Your task to perform on an android device: turn on location history Image 0: 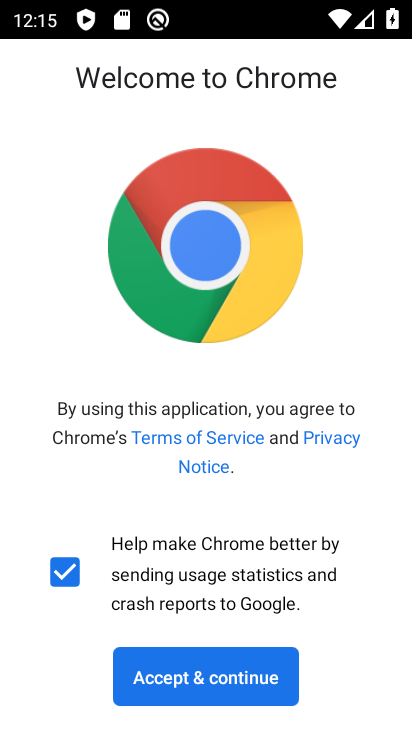
Step 0: press home button
Your task to perform on an android device: turn on location history Image 1: 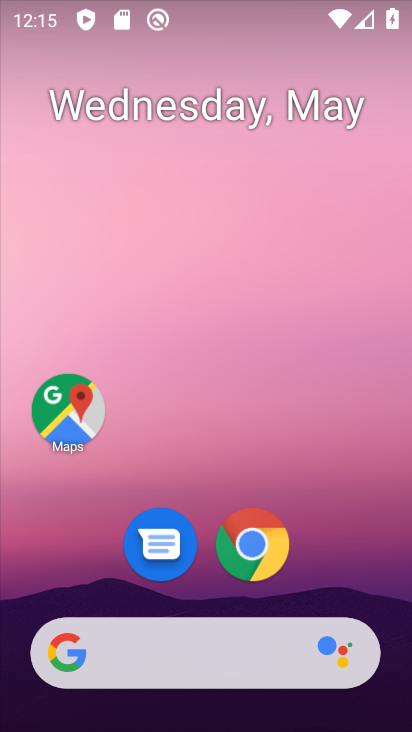
Step 1: drag from (337, 572) to (349, 221)
Your task to perform on an android device: turn on location history Image 2: 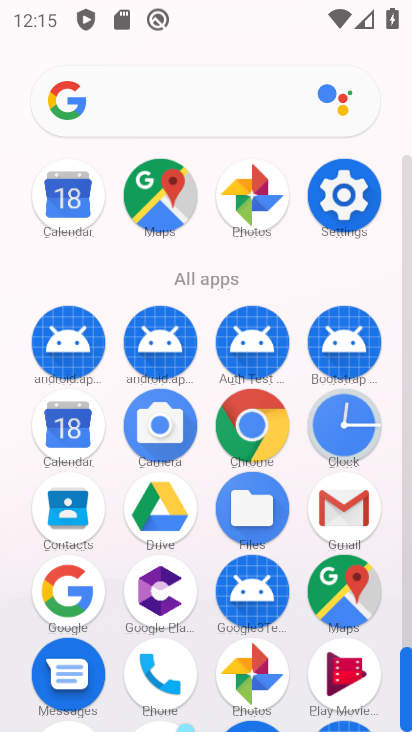
Step 2: click (352, 185)
Your task to perform on an android device: turn on location history Image 3: 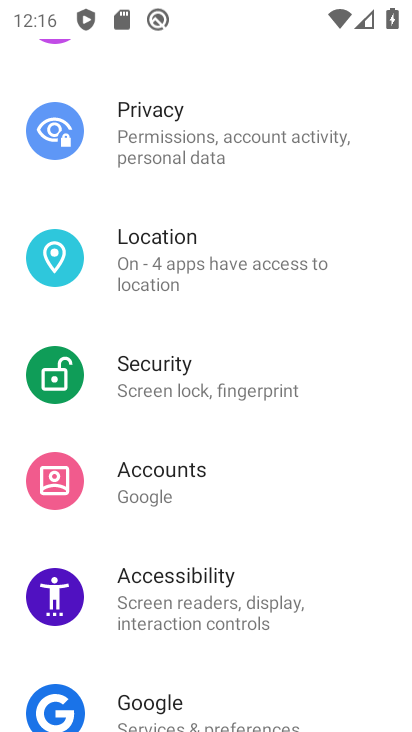
Step 3: drag from (306, 196) to (295, 580)
Your task to perform on an android device: turn on location history Image 4: 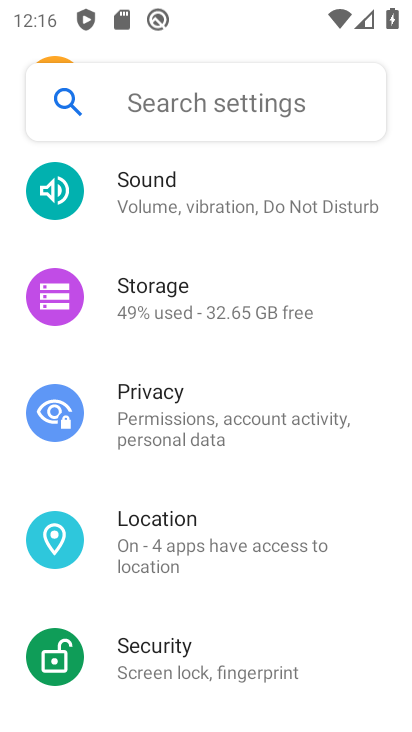
Step 4: drag from (282, 606) to (328, 214)
Your task to perform on an android device: turn on location history Image 5: 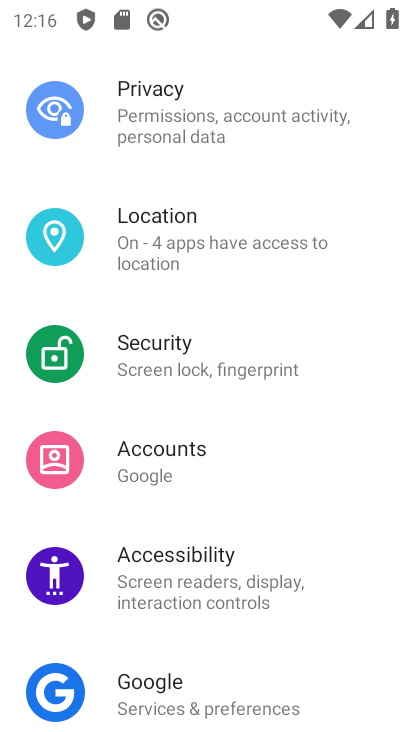
Step 5: click (193, 240)
Your task to perform on an android device: turn on location history Image 6: 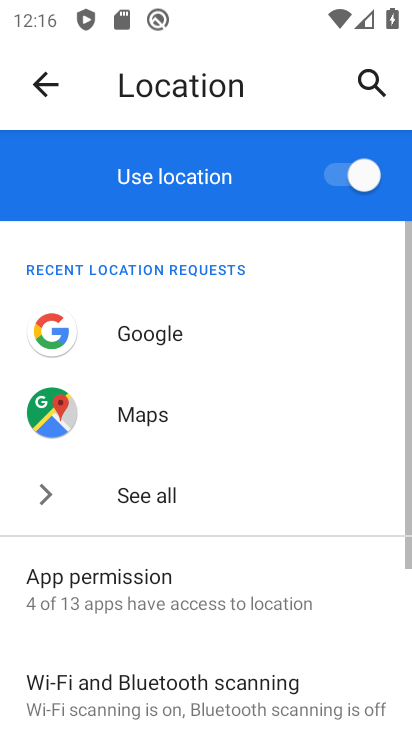
Step 6: drag from (232, 561) to (304, 155)
Your task to perform on an android device: turn on location history Image 7: 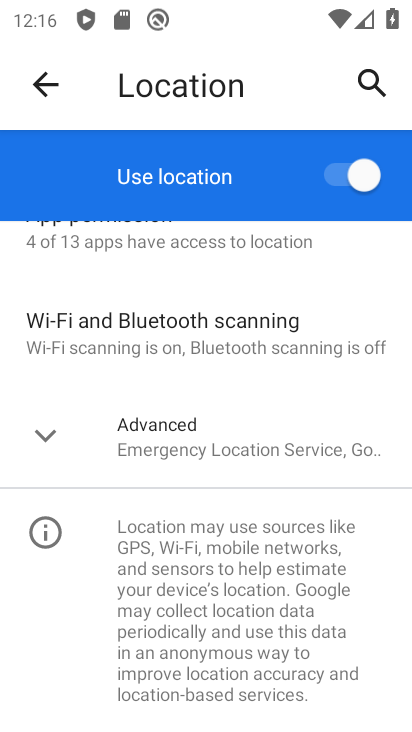
Step 7: click (228, 415)
Your task to perform on an android device: turn on location history Image 8: 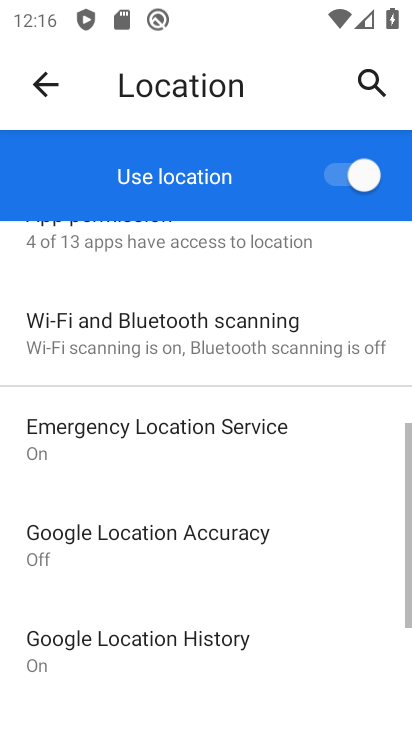
Step 8: drag from (329, 607) to (314, 251)
Your task to perform on an android device: turn on location history Image 9: 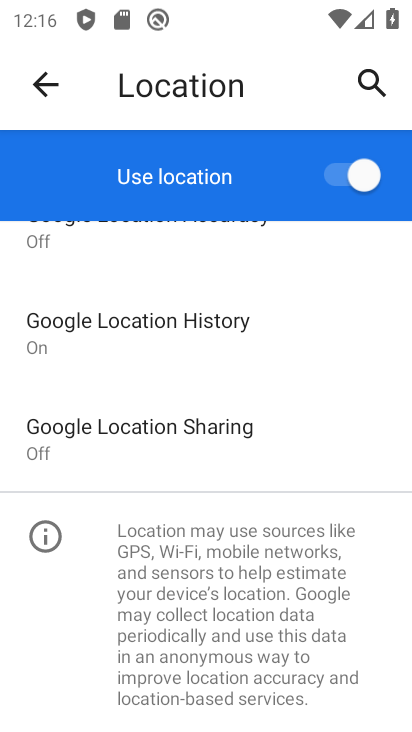
Step 9: click (178, 332)
Your task to perform on an android device: turn on location history Image 10: 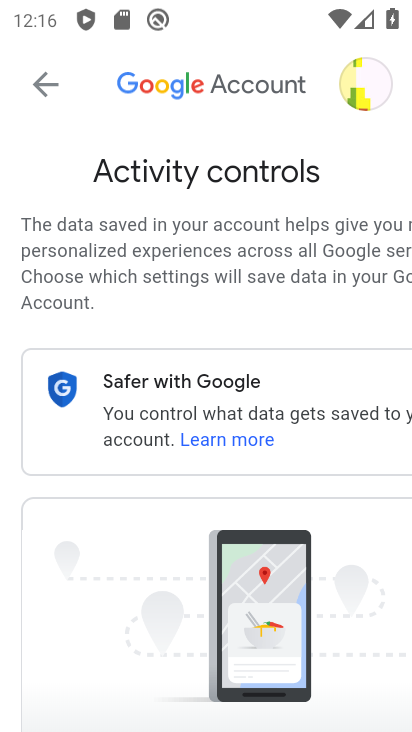
Step 10: task complete